Your task to perform on an android device: add a contact Image 0: 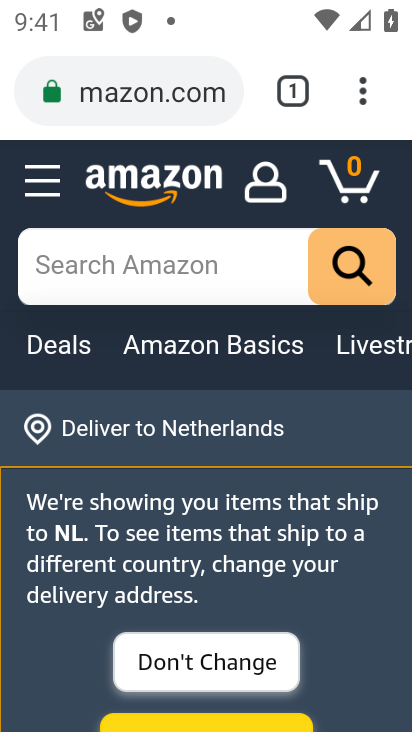
Step 0: press home button
Your task to perform on an android device: add a contact Image 1: 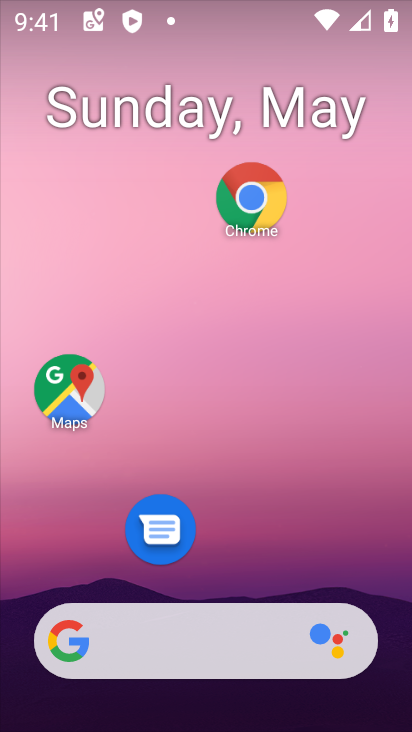
Step 1: drag from (258, 565) to (264, 1)
Your task to perform on an android device: add a contact Image 2: 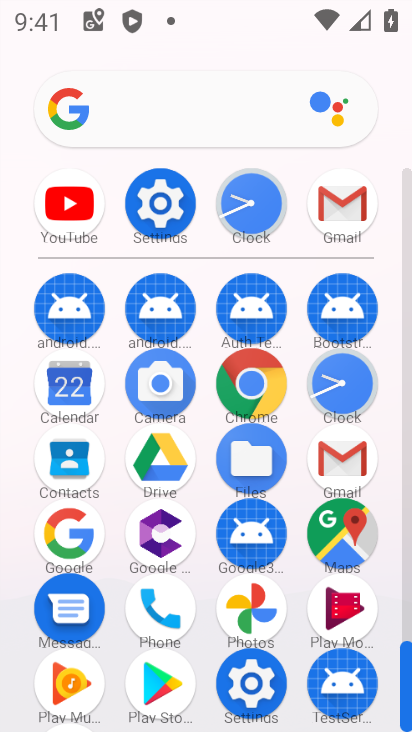
Step 2: click (58, 463)
Your task to perform on an android device: add a contact Image 3: 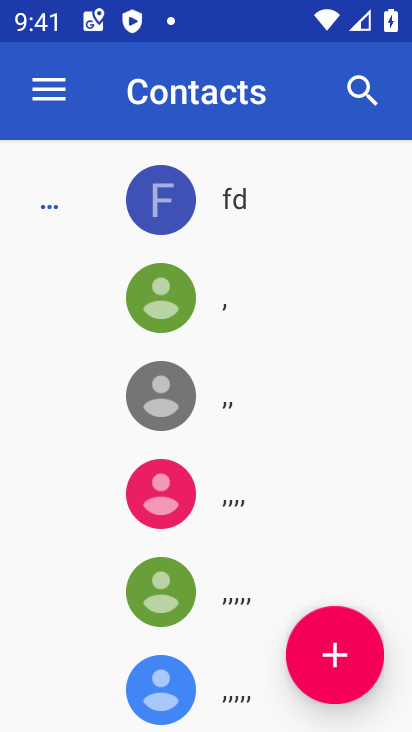
Step 3: click (331, 677)
Your task to perform on an android device: add a contact Image 4: 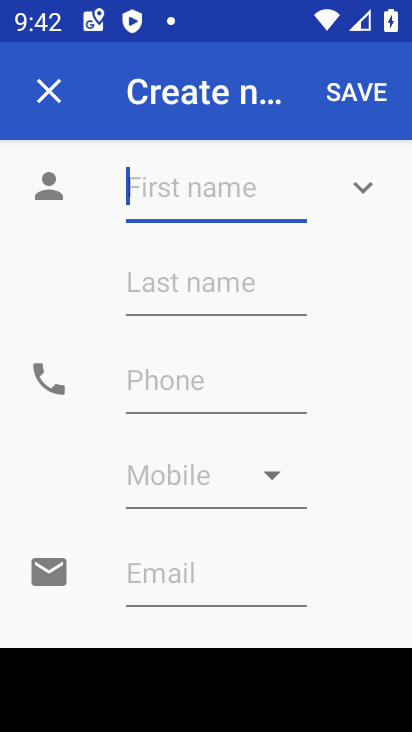
Step 4: type "ertyuiop"
Your task to perform on an android device: add a contact Image 5: 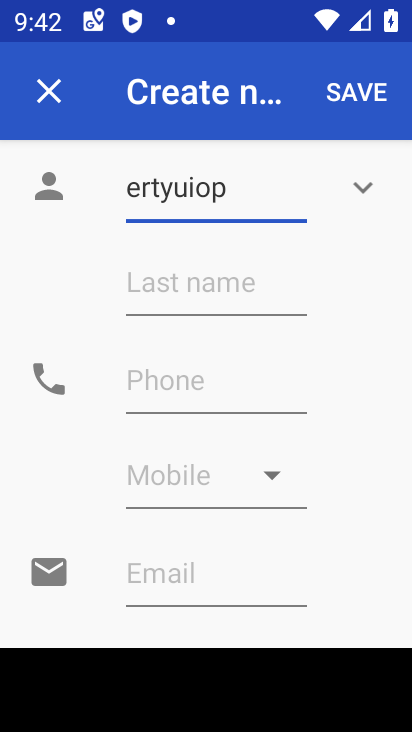
Step 5: click (181, 386)
Your task to perform on an android device: add a contact Image 6: 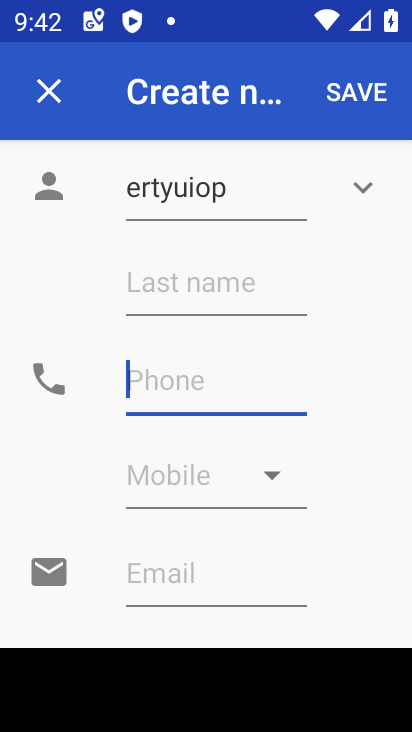
Step 6: type "6578909878"
Your task to perform on an android device: add a contact Image 7: 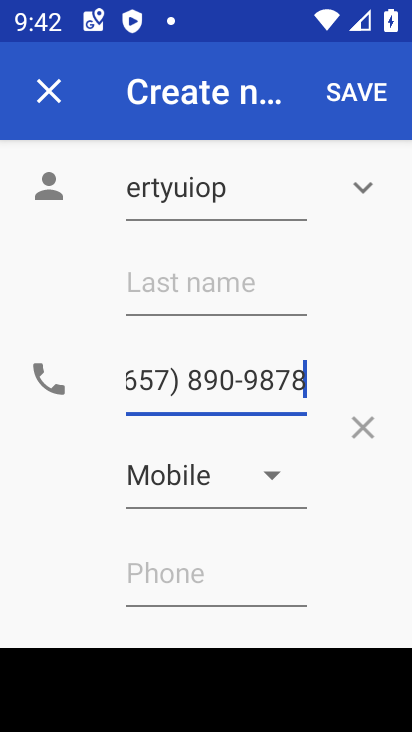
Step 7: click (367, 86)
Your task to perform on an android device: add a contact Image 8: 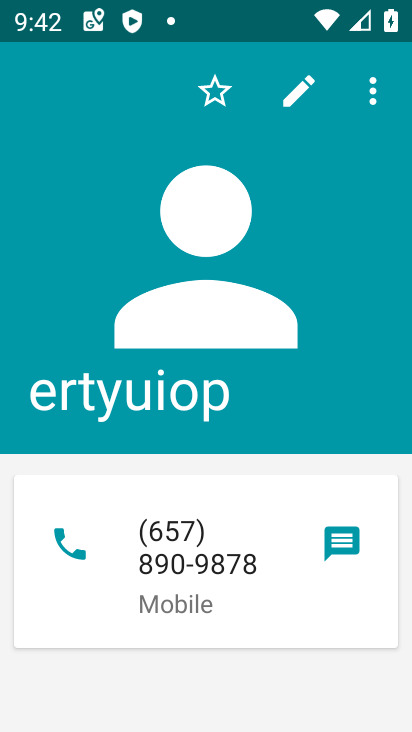
Step 8: task complete